Your task to perform on an android device: set default search engine in the chrome app Image 0: 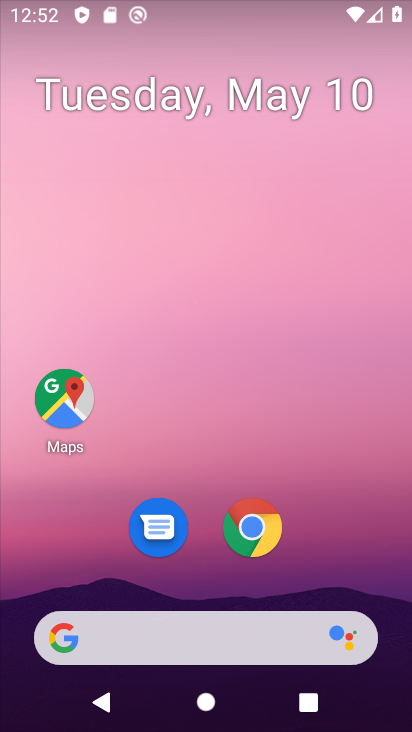
Step 0: click (258, 531)
Your task to perform on an android device: set default search engine in the chrome app Image 1: 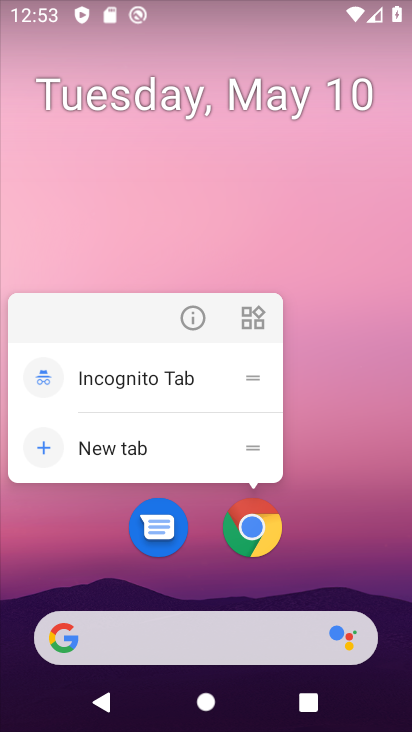
Step 1: click (259, 524)
Your task to perform on an android device: set default search engine in the chrome app Image 2: 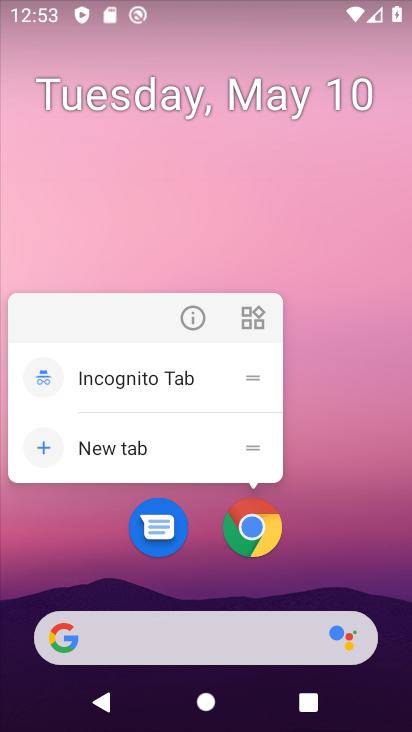
Step 2: click (259, 525)
Your task to perform on an android device: set default search engine in the chrome app Image 3: 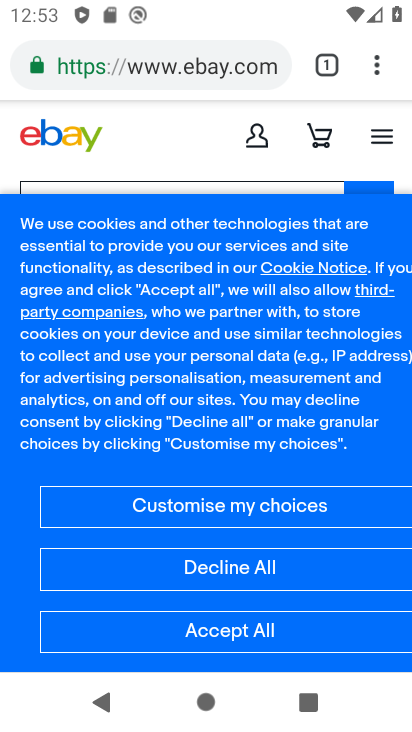
Step 3: drag from (378, 66) to (193, 587)
Your task to perform on an android device: set default search engine in the chrome app Image 4: 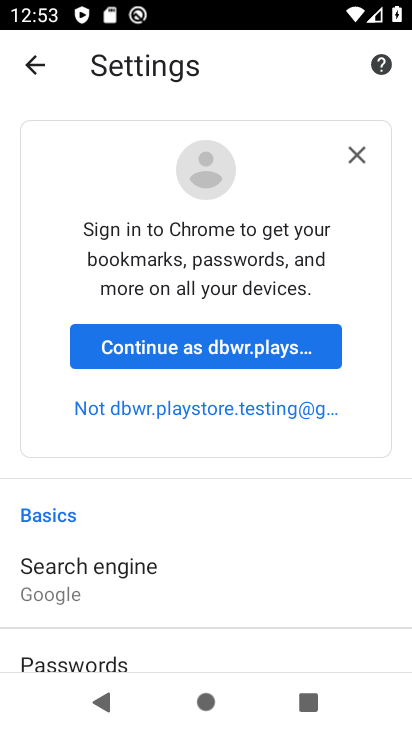
Step 4: drag from (202, 560) to (211, 357)
Your task to perform on an android device: set default search engine in the chrome app Image 5: 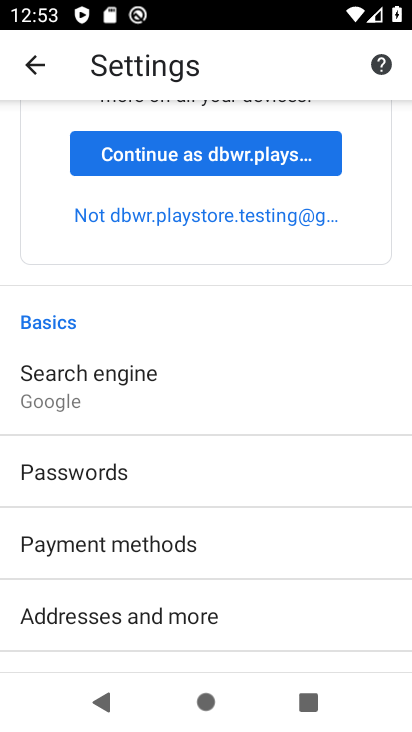
Step 5: click (107, 376)
Your task to perform on an android device: set default search engine in the chrome app Image 6: 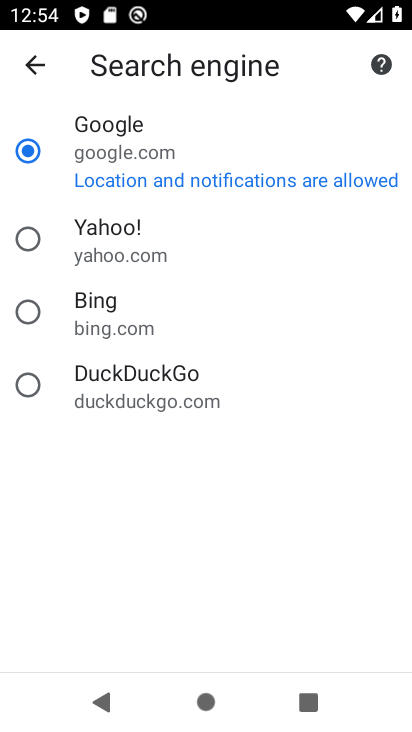
Step 6: click (32, 245)
Your task to perform on an android device: set default search engine in the chrome app Image 7: 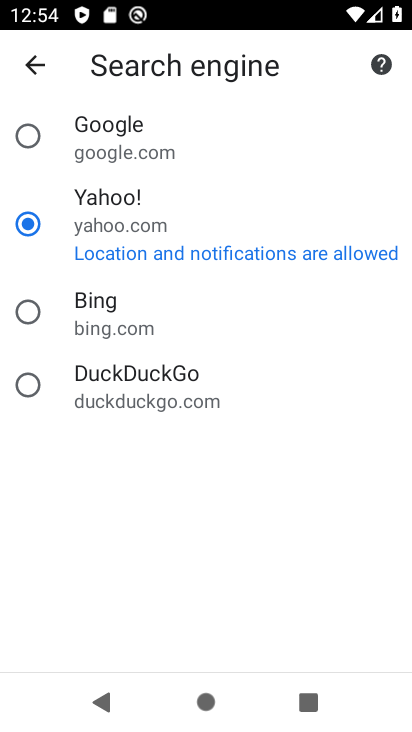
Step 7: task complete